Your task to perform on an android device: turn on improve location accuracy Image 0: 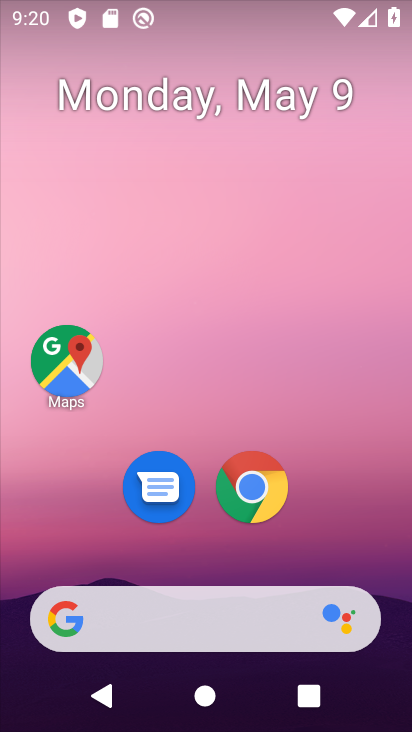
Step 0: drag from (50, 617) to (307, 174)
Your task to perform on an android device: turn on improve location accuracy Image 1: 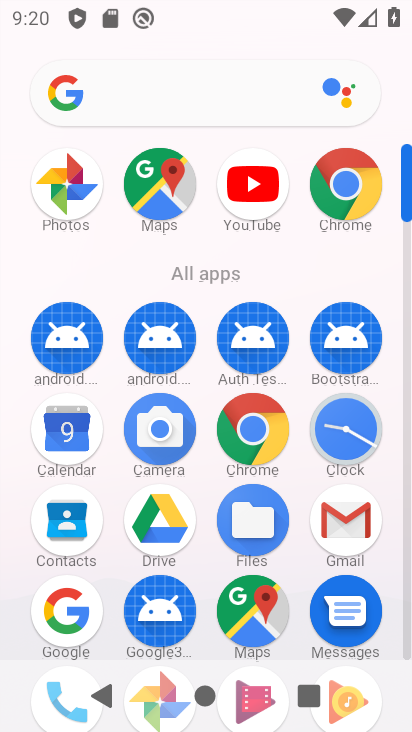
Step 1: drag from (9, 622) to (296, 186)
Your task to perform on an android device: turn on improve location accuracy Image 2: 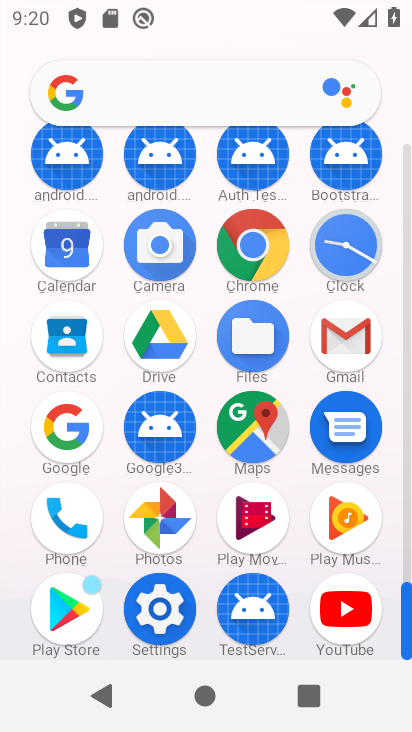
Step 2: click (161, 595)
Your task to perform on an android device: turn on improve location accuracy Image 3: 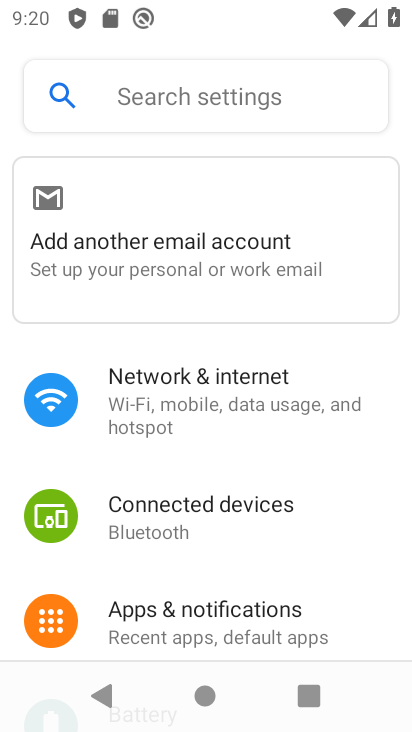
Step 3: drag from (165, 616) to (296, 191)
Your task to perform on an android device: turn on improve location accuracy Image 4: 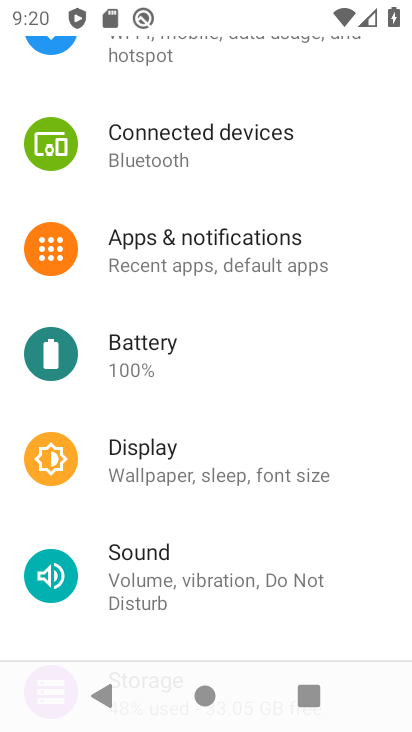
Step 4: drag from (124, 618) to (309, 214)
Your task to perform on an android device: turn on improve location accuracy Image 5: 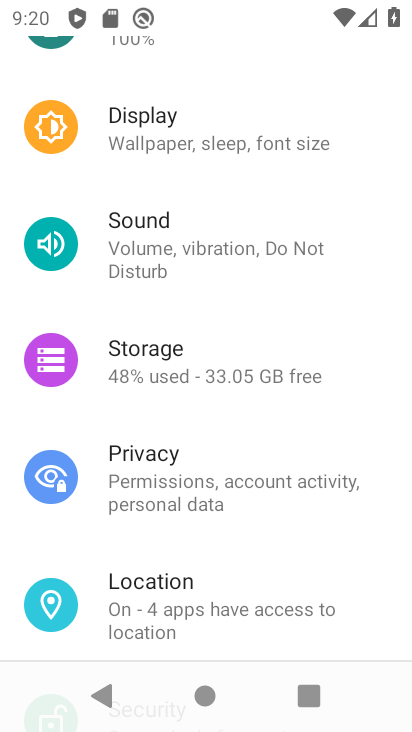
Step 5: click (173, 595)
Your task to perform on an android device: turn on improve location accuracy Image 6: 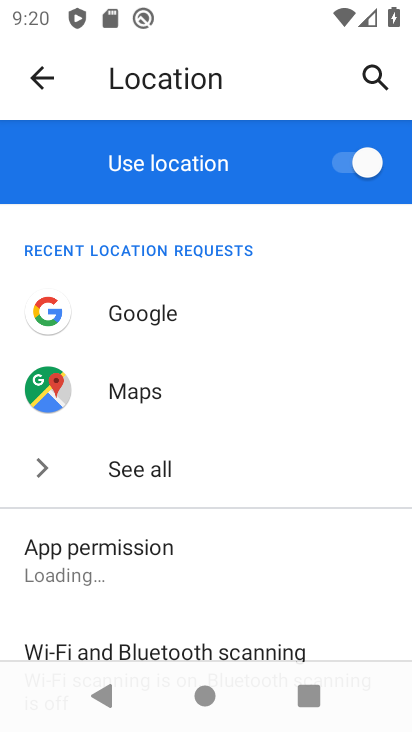
Step 6: drag from (167, 627) to (253, 317)
Your task to perform on an android device: turn on improve location accuracy Image 7: 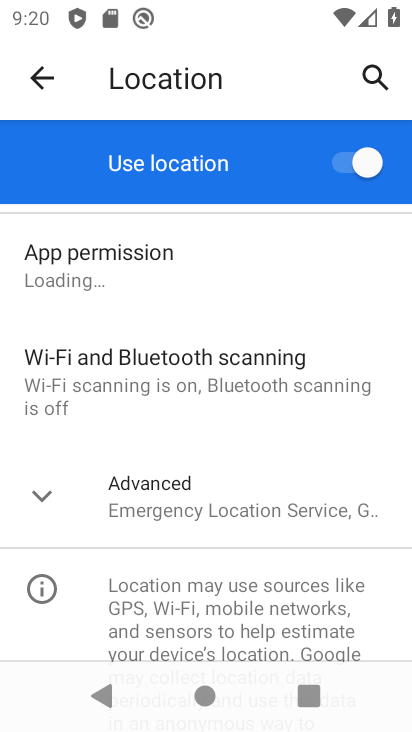
Step 7: click (185, 495)
Your task to perform on an android device: turn on improve location accuracy Image 8: 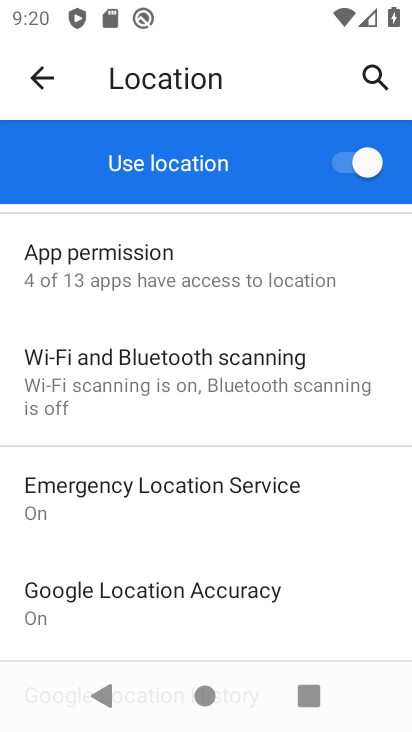
Step 8: click (152, 585)
Your task to perform on an android device: turn on improve location accuracy Image 9: 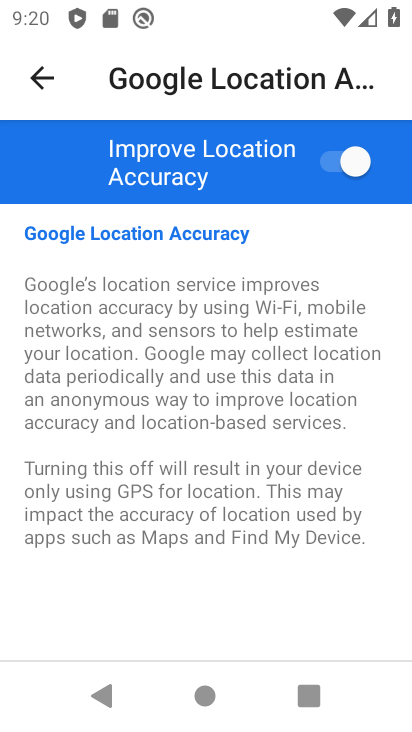
Step 9: task complete